Your task to perform on an android device: star an email in the gmail app Image 0: 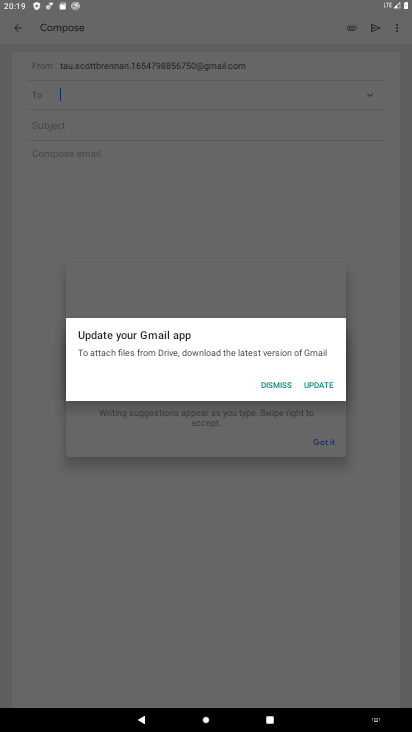
Step 0: press home button
Your task to perform on an android device: star an email in the gmail app Image 1: 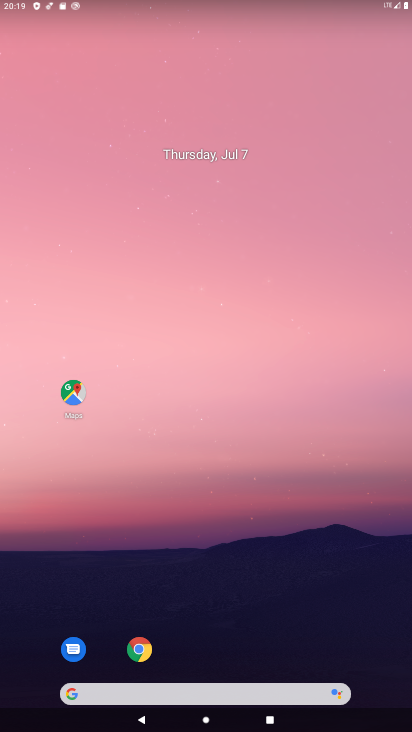
Step 1: drag from (191, 530) to (146, 34)
Your task to perform on an android device: star an email in the gmail app Image 2: 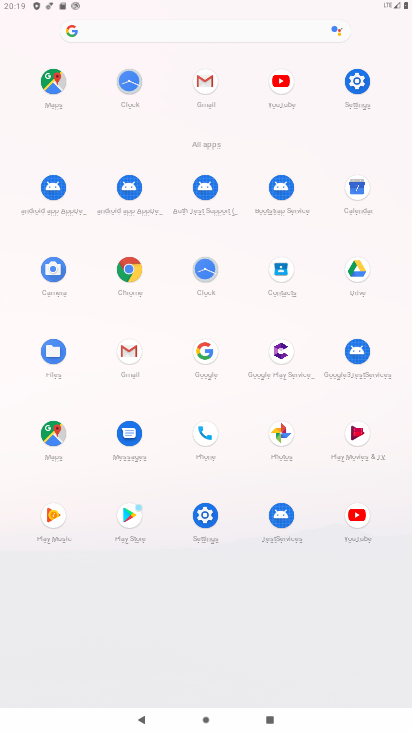
Step 2: click (205, 81)
Your task to perform on an android device: star an email in the gmail app Image 3: 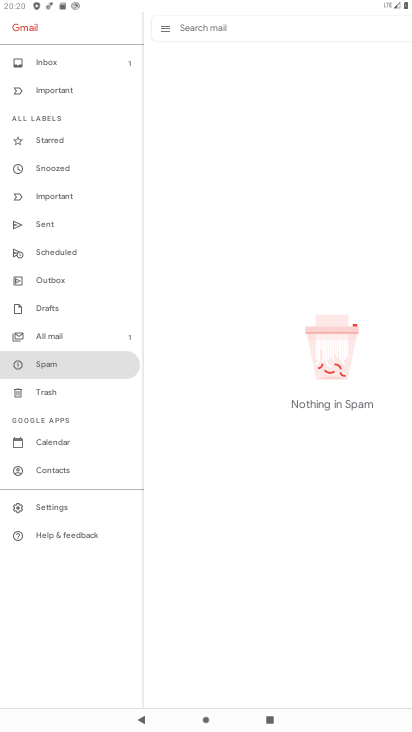
Step 3: click (50, 335)
Your task to perform on an android device: star an email in the gmail app Image 4: 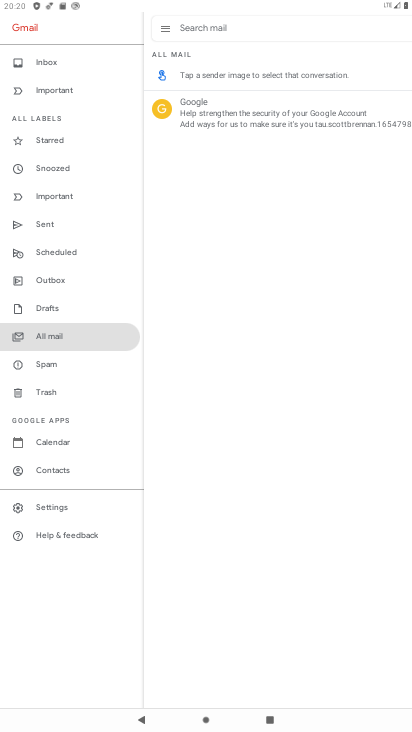
Step 4: click (206, 111)
Your task to perform on an android device: star an email in the gmail app Image 5: 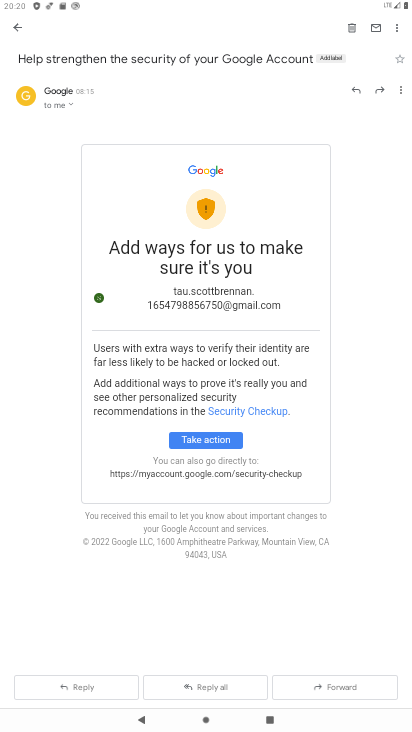
Step 5: click (397, 56)
Your task to perform on an android device: star an email in the gmail app Image 6: 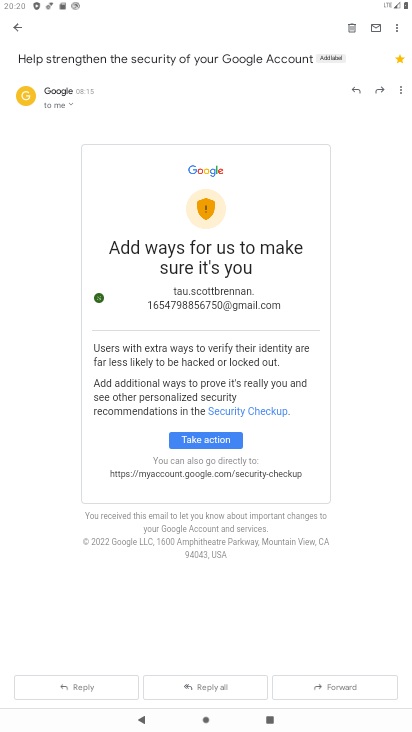
Step 6: task complete